Your task to perform on an android device: Search for sushi restaurants on Maps Image 0: 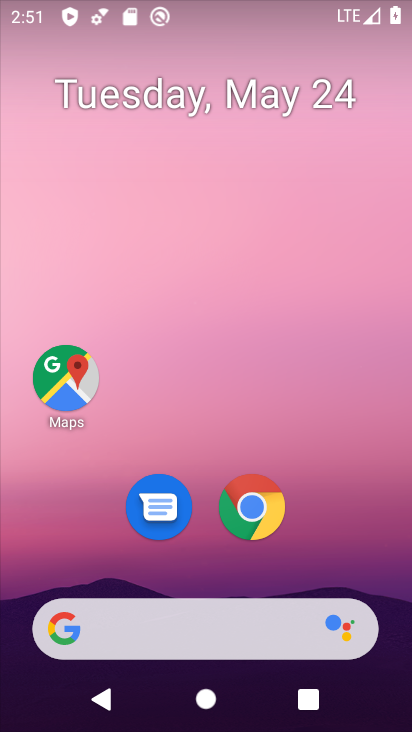
Step 0: click (61, 370)
Your task to perform on an android device: Search for sushi restaurants on Maps Image 1: 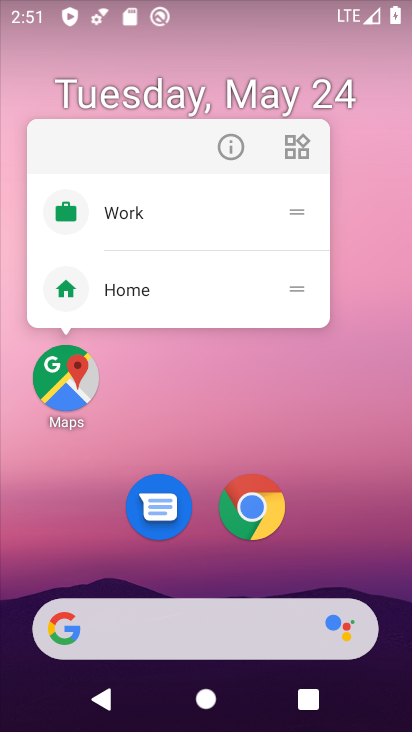
Step 1: click (61, 376)
Your task to perform on an android device: Search for sushi restaurants on Maps Image 2: 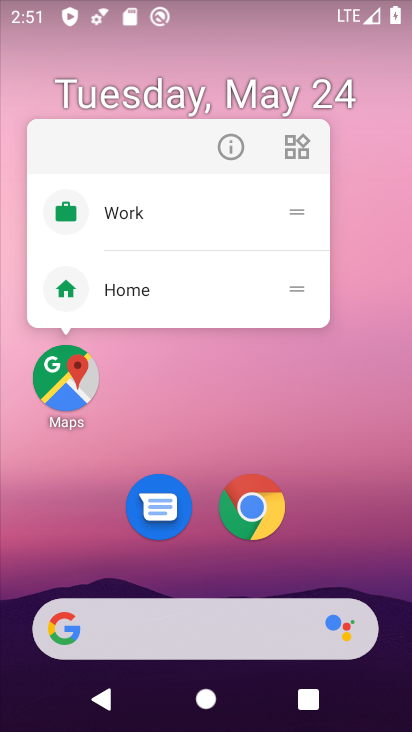
Step 2: click (64, 379)
Your task to perform on an android device: Search for sushi restaurants on Maps Image 3: 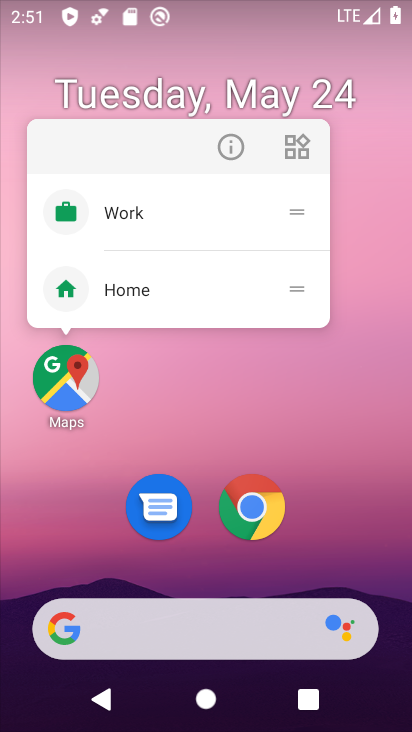
Step 3: click (70, 380)
Your task to perform on an android device: Search for sushi restaurants on Maps Image 4: 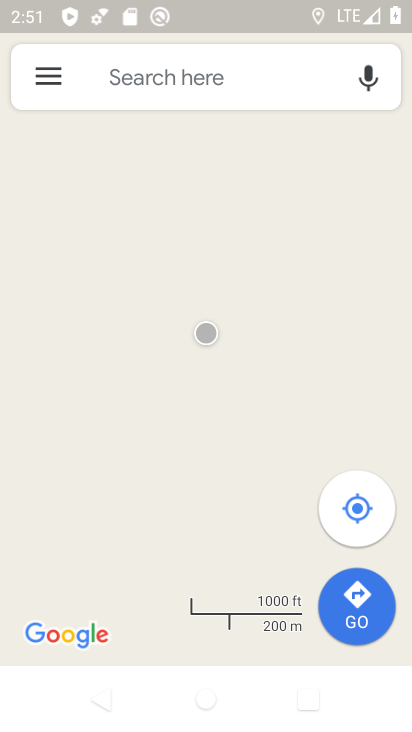
Step 4: click (167, 77)
Your task to perform on an android device: Search for sushi restaurants on Maps Image 5: 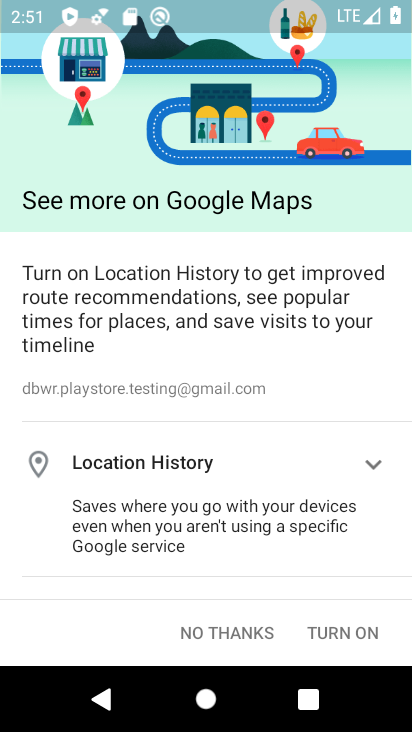
Step 5: click (216, 637)
Your task to perform on an android device: Search for sushi restaurants on Maps Image 6: 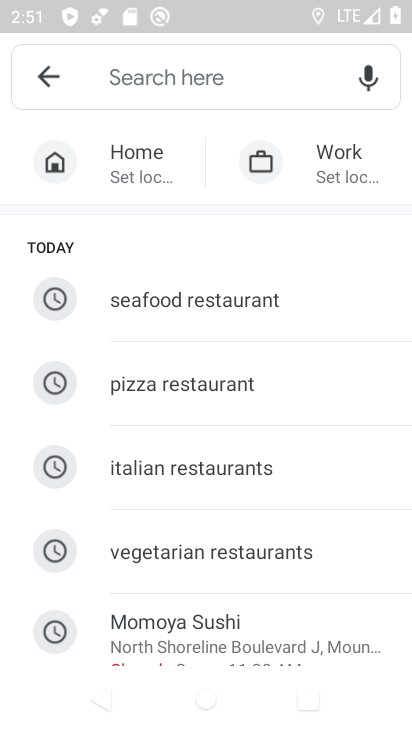
Step 6: drag from (156, 562) to (262, 155)
Your task to perform on an android device: Search for sushi restaurants on Maps Image 7: 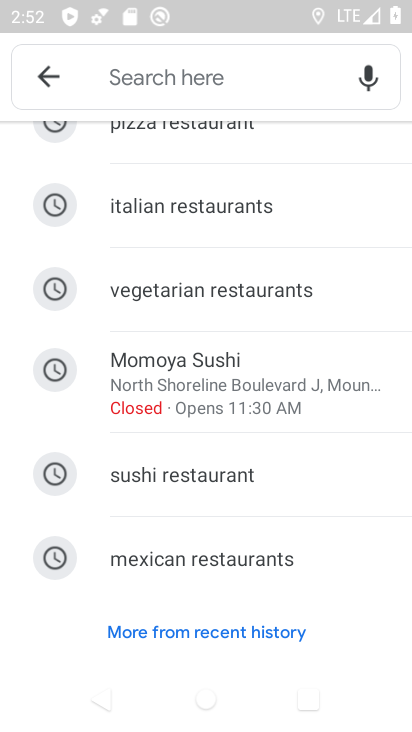
Step 7: click (156, 486)
Your task to perform on an android device: Search for sushi restaurants on Maps Image 8: 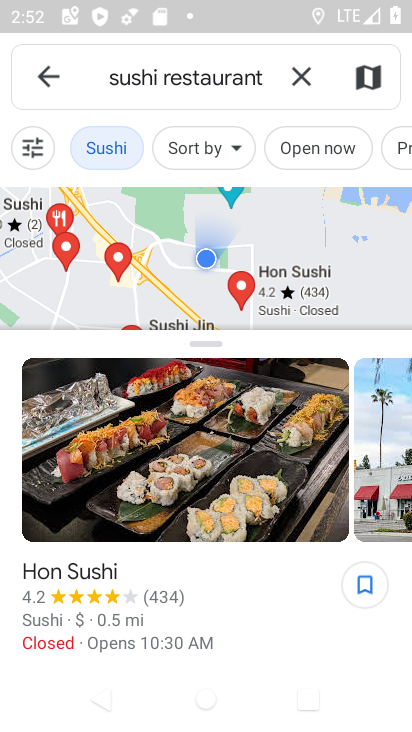
Step 8: task complete